Your task to perform on an android device: Go to Amazon Image 0: 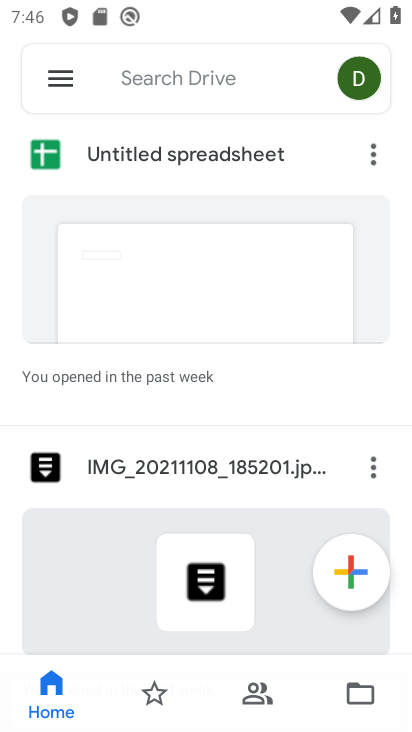
Step 0: press home button
Your task to perform on an android device: Go to Amazon Image 1: 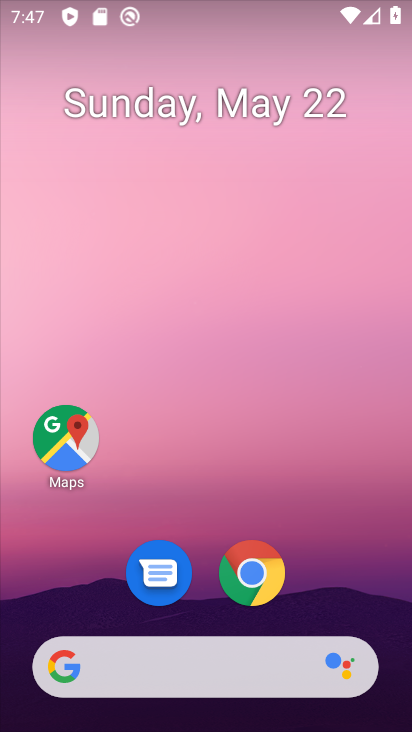
Step 1: drag from (356, 577) to (352, 145)
Your task to perform on an android device: Go to Amazon Image 2: 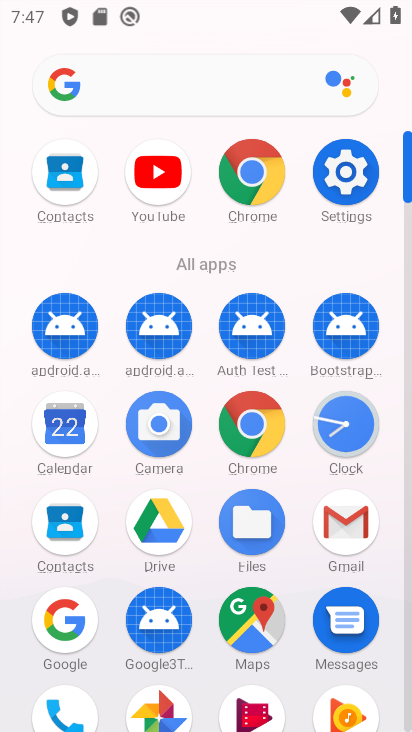
Step 2: click (271, 430)
Your task to perform on an android device: Go to Amazon Image 3: 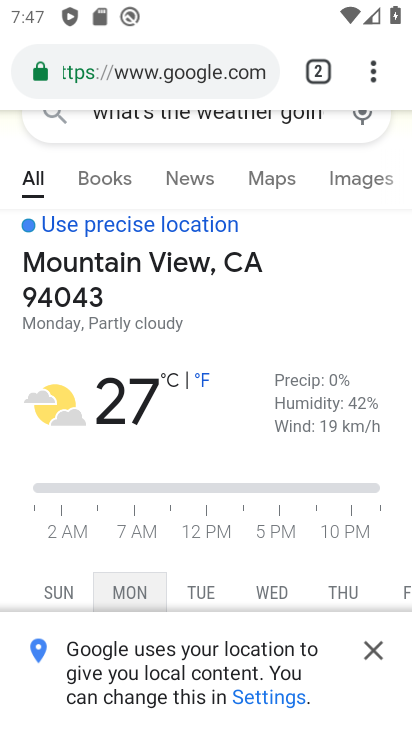
Step 3: click (330, 60)
Your task to perform on an android device: Go to Amazon Image 4: 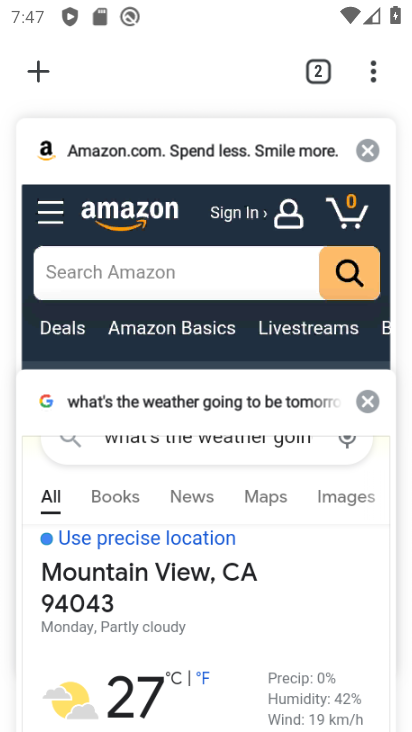
Step 4: click (38, 73)
Your task to perform on an android device: Go to Amazon Image 5: 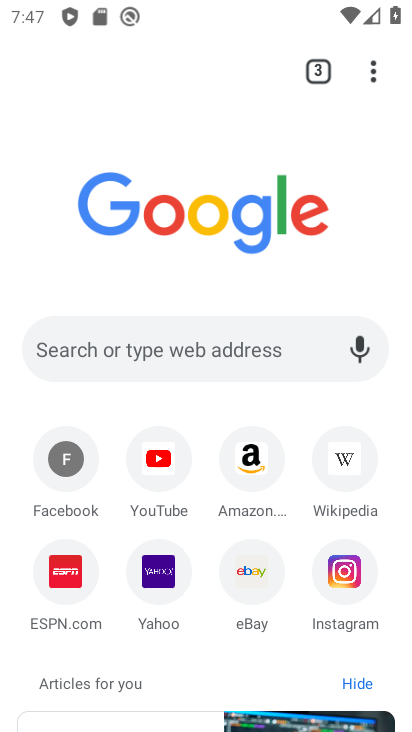
Step 5: click (259, 468)
Your task to perform on an android device: Go to Amazon Image 6: 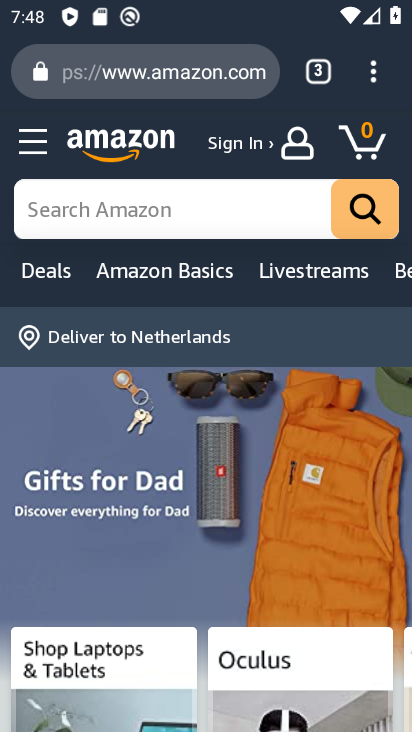
Step 6: task complete